Your task to perform on an android device: turn on priority inbox in the gmail app Image 0: 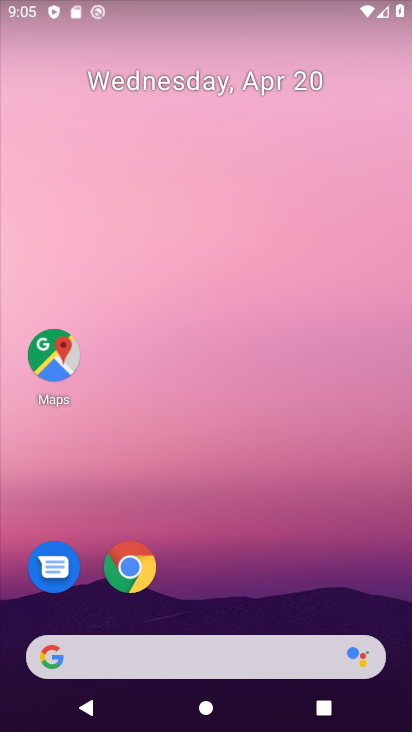
Step 0: drag from (363, 564) to (357, 180)
Your task to perform on an android device: turn on priority inbox in the gmail app Image 1: 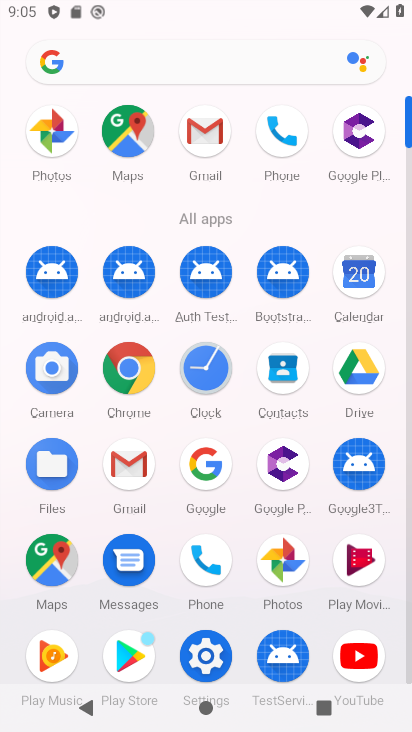
Step 1: click (130, 477)
Your task to perform on an android device: turn on priority inbox in the gmail app Image 2: 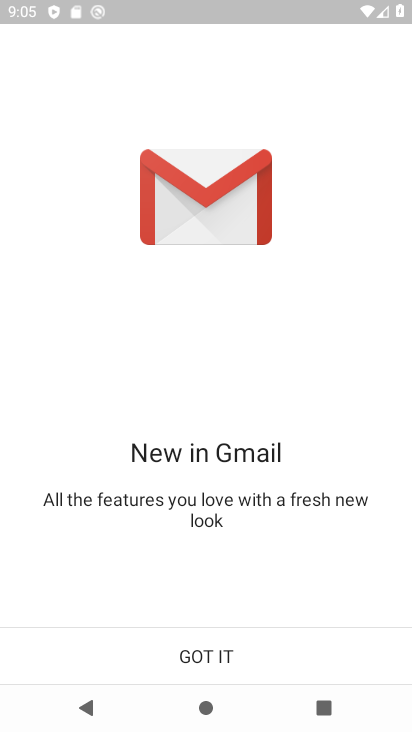
Step 2: click (200, 648)
Your task to perform on an android device: turn on priority inbox in the gmail app Image 3: 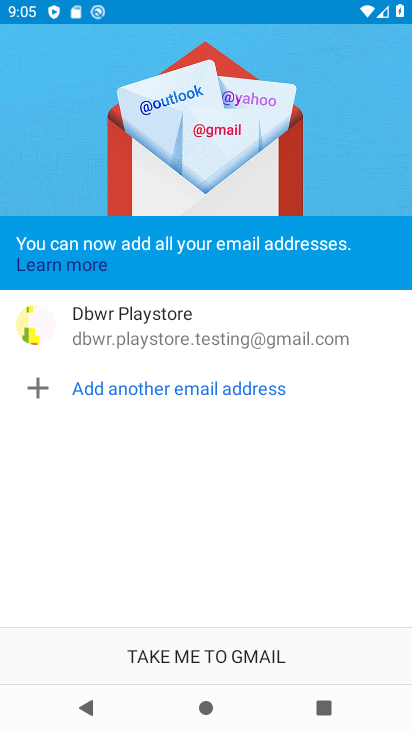
Step 3: click (200, 648)
Your task to perform on an android device: turn on priority inbox in the gmail app Image 4: 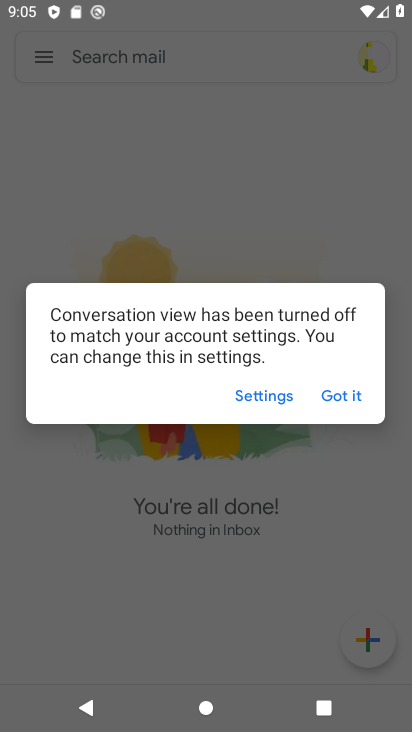
Step 4: click (347, 392)
Your task to perform on an android device: turn on priority inbox in the gmail app Image 5: 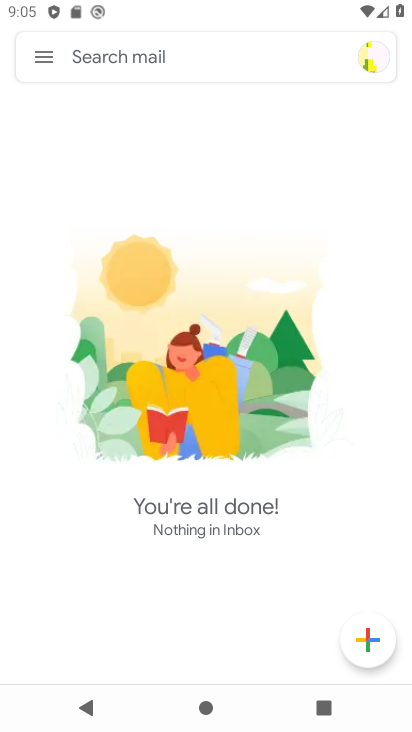
Step 5: click (44, 58)
Your task to perform on an android device: turn on priority inbox in the gmail app Image 6: 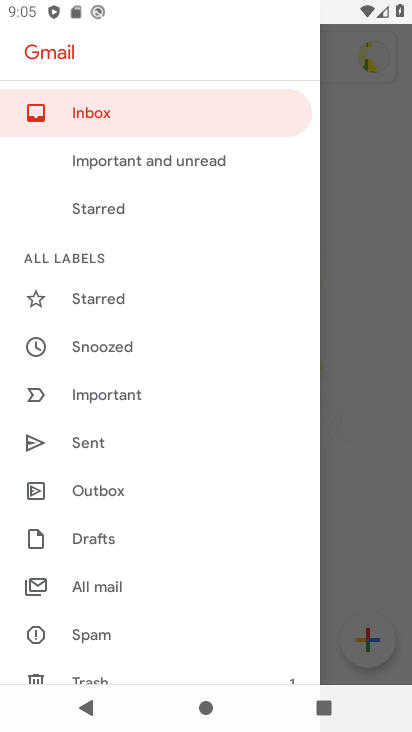
Step 6: drag from (227, 543) to (233, 368)
Your task to perform on an android device: turn on priority inbox in the gmail app Image 7: 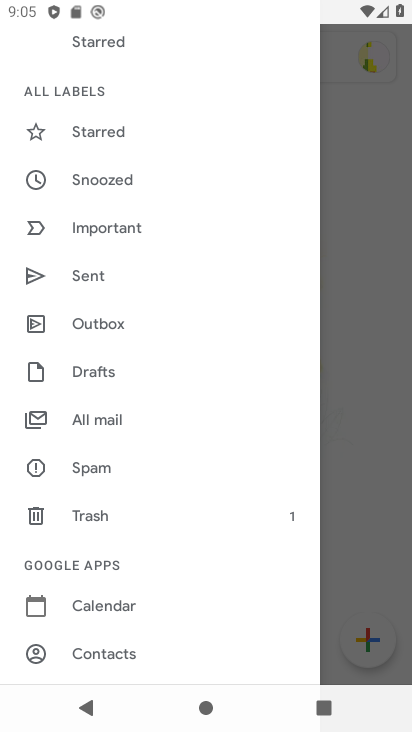
Step 7: drag from (214, 568) to (245, 389)
Your task to perform on an android device: turn on priority inbox in the gmail app Image 8: 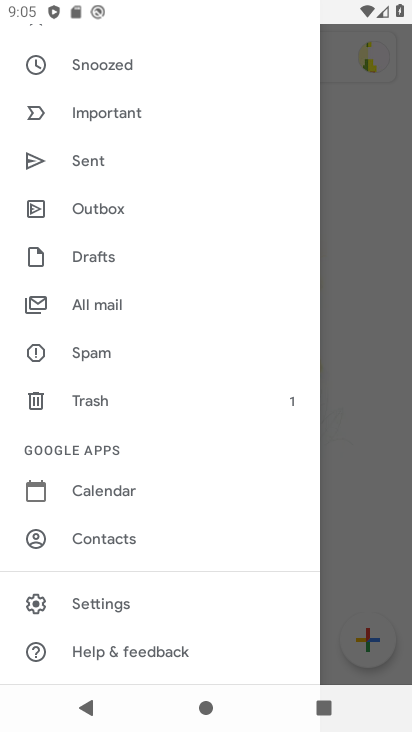
Step 8: click (175, 602)
Your task to perform on an android device: turn on priority inbox in the gmail app Image 9: 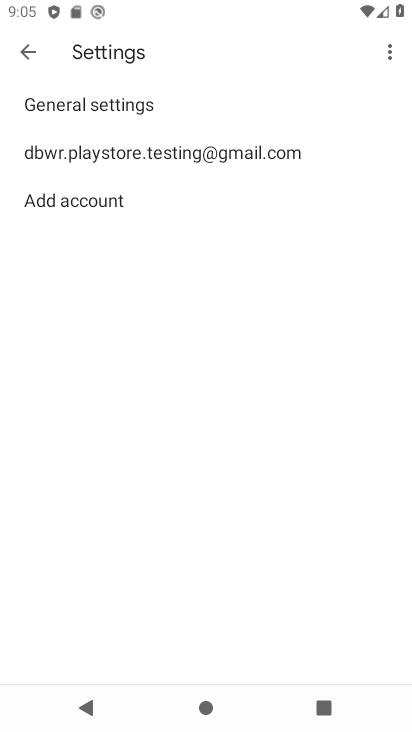
Step 9: click (238, 148)
Your task to perform on an android device: turn on priority inbox in the gmail app Image 10: 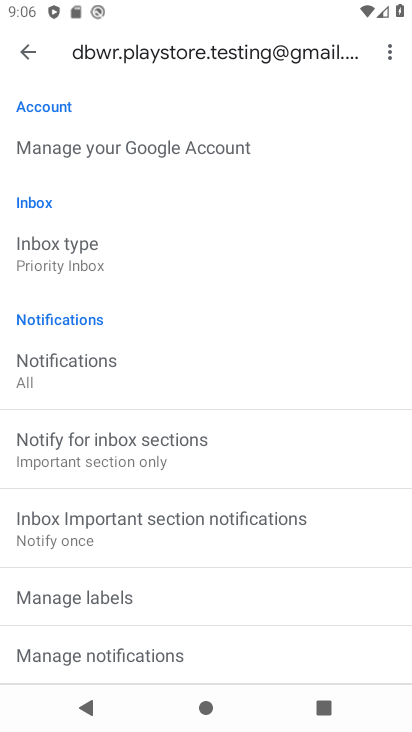
Step 10: drag from (319, 571) to (340, 399)
Your task to perform on an android device: turn on priority inbox in the gmail app Image 11: 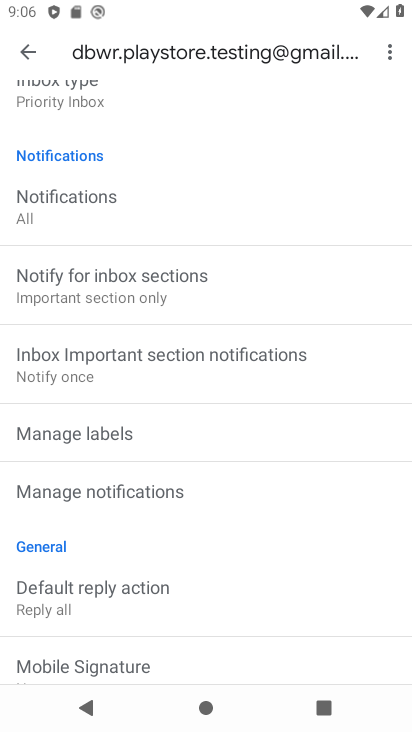
Step 11: drag from (340, 568) to (346, 399)
Your task to perform on an android device: turn on priority inbox in the gmail app Image 12: 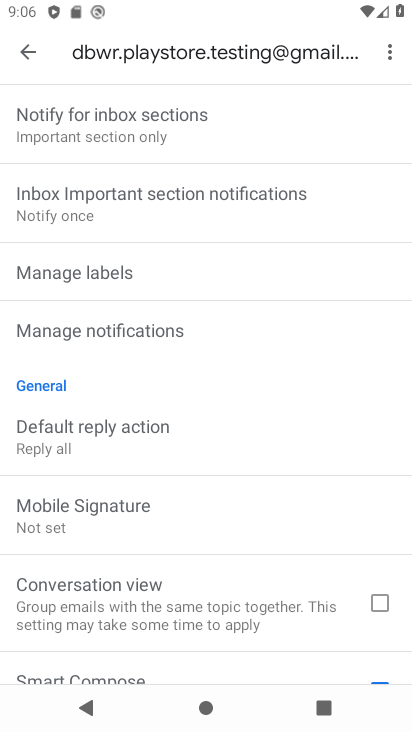
Step 12: drag from (330, 539) to (327, 362)
Your task to perform on an android device: turn on priority inbox in the gmail app Image 13: 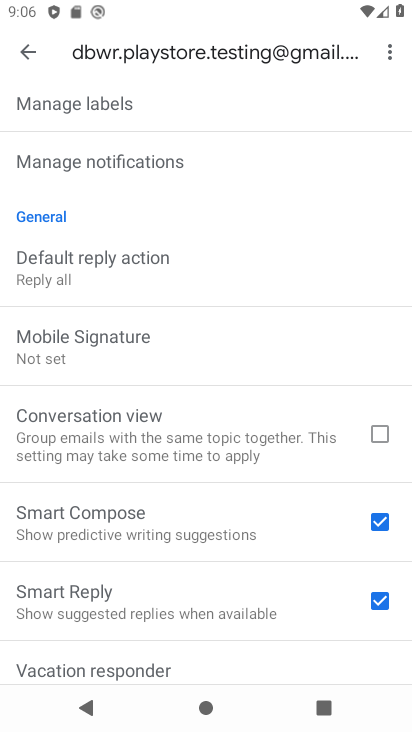
Step 13: drag from (315, 596) to (313, 434)
Your task to perform on an android device: turn on priority inbox in the gmail app Image 14: 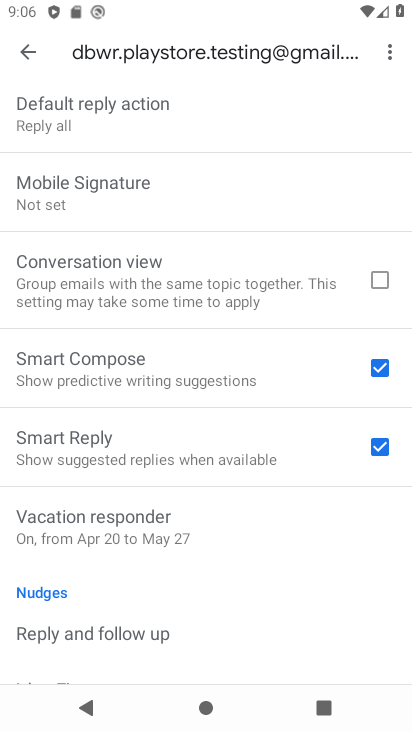
Step 14: drag from (322, 213) to (310, 447)
Your task to perform on an android device: turn on priority inbox in the gmail app Image 15: 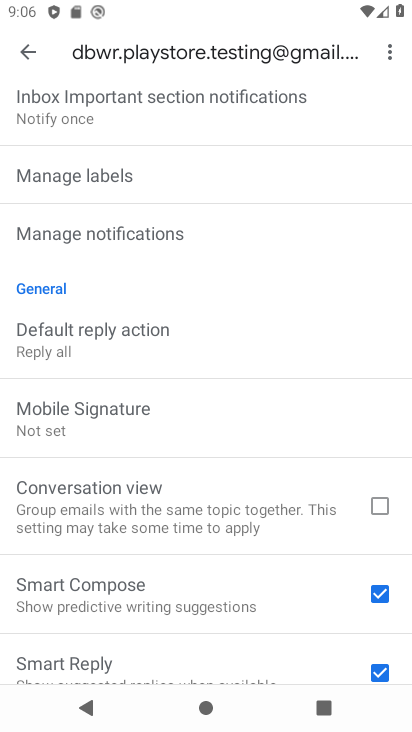
Step 15: drag from (315, 226) to (318, 406)
Your task to perform on an android device: turn on priority inbox in the gmail app Image 16: 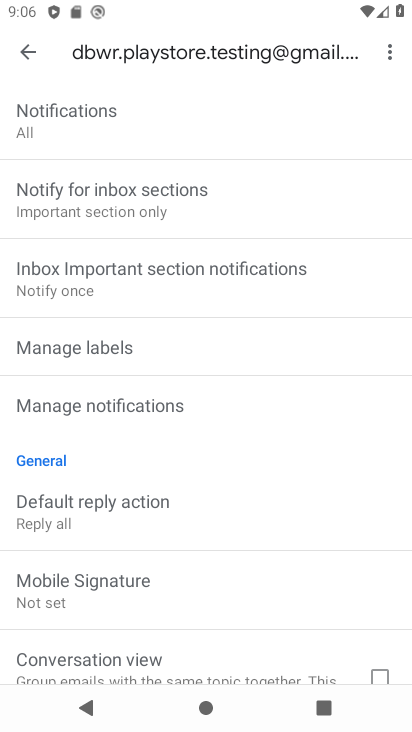
Step 16: drag from (329, 197) to (320, 436)
Your task to perform on an android device: turn on priority inbox in the gmail app Image 17: 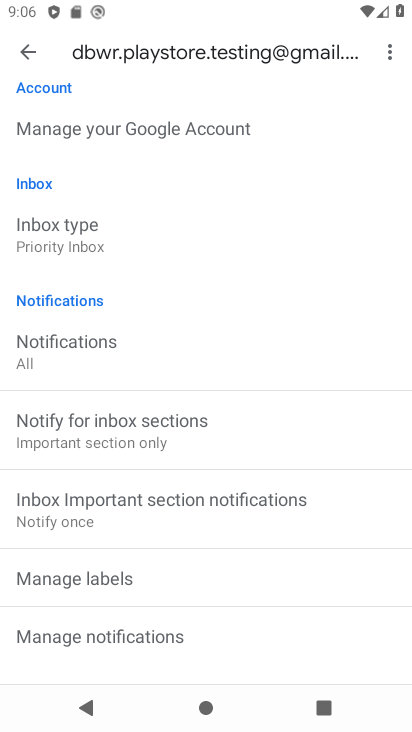
Step 17: click (60, 241)
Your task to perform on an android device: turn on priority inbox in the gmail app Image 18: 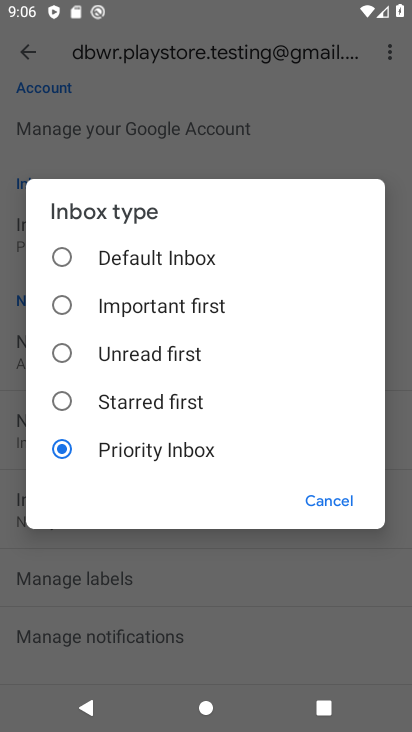
Step 18: task complete